Your task to perform on an android device: toggle wifi Image 0: 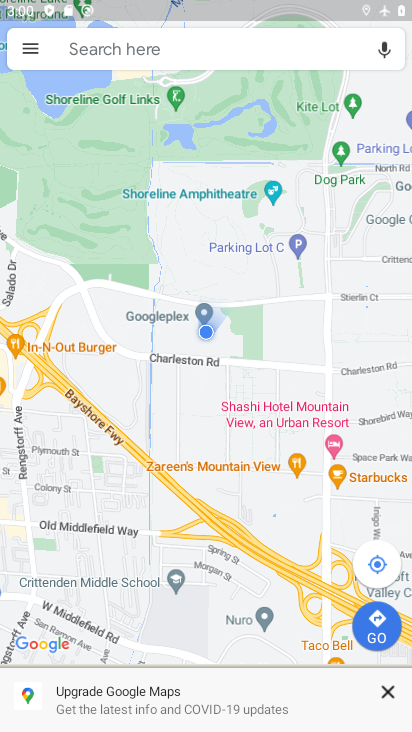
Step 0: press back button
Your task to perform on an android device: toggle wifi Image 1: 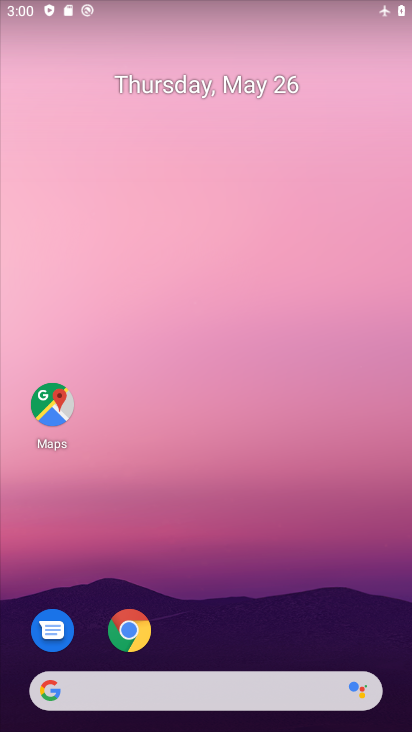
Step 1: drag from (255, 622) to (257, 318)
Your task to perform on an android device: toggle wifi Image 2: 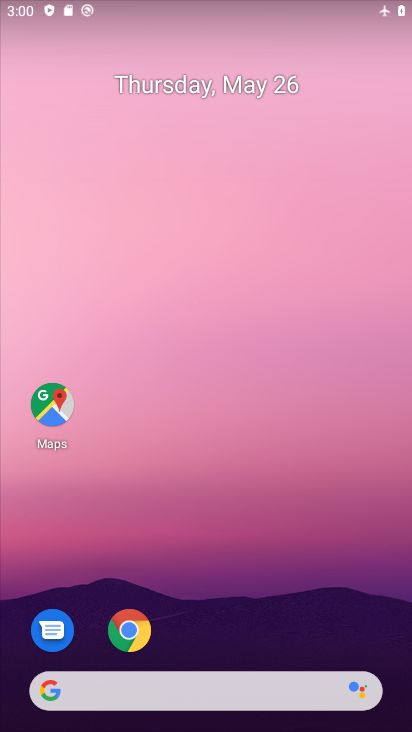
Step 2: drag from (256, 613) to (242, 56)
Your task to perform on an android device: toggle wifi Image 3: 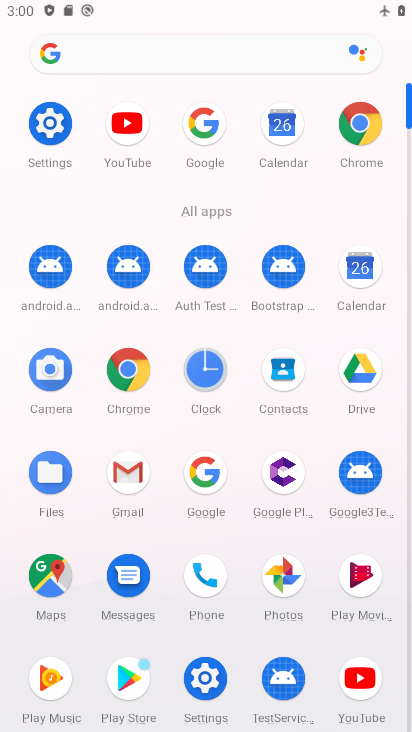
Step 3: click (50, 120)
Your task to perform on an android device: toggle wifi Image 4: 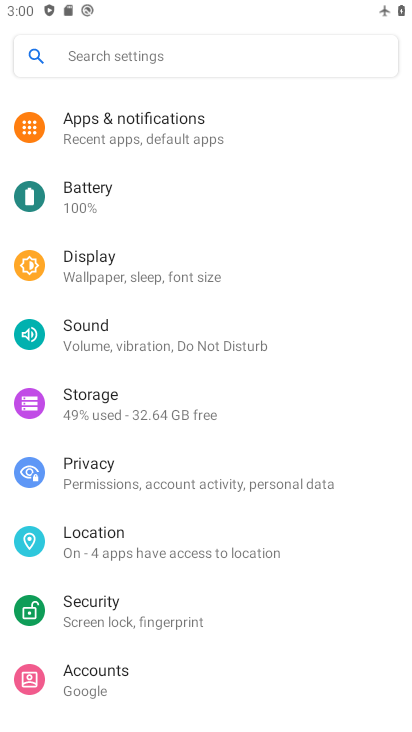
Step 4: drag from (175, 205) to (127, 308)
Your task to perform on an android device: toggle wifi Image 5: 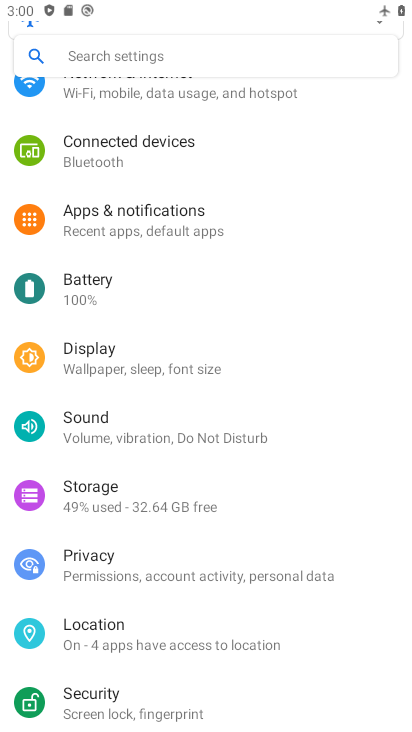
Step 5: drag from (121, 184) to (145, 309)
Your task to perform on an android device: toggle wifi Image 6: 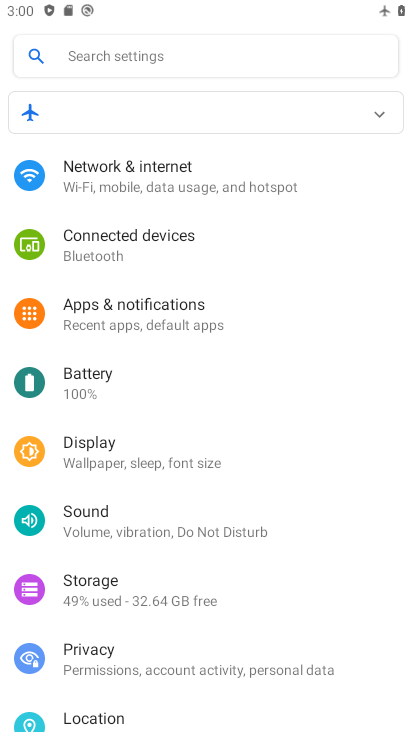
Step 6: click (126, 193)
Your task to perform on an android device: toggle wifi Image 7: 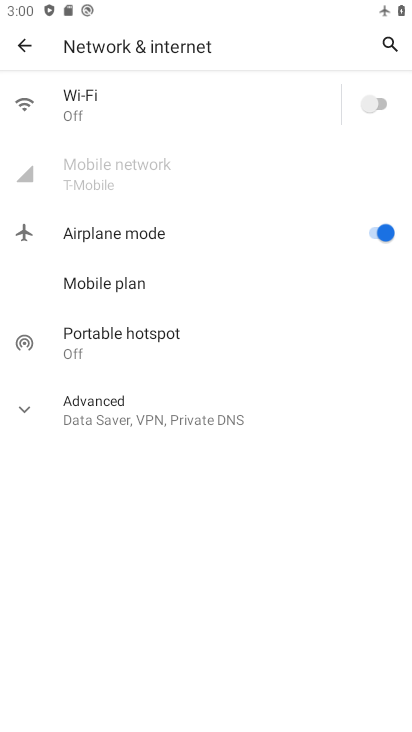
Step 7: click (382, 102)
Your task to perform on an android device: toggle wifi Image 8: 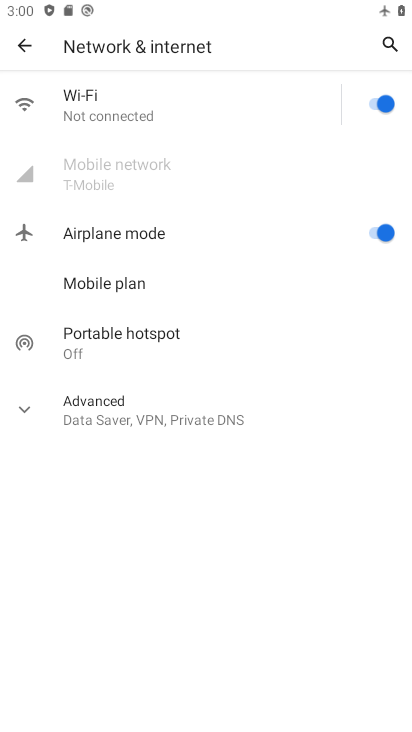
Step 8: task complete